Your task to perform on an android device: open app "Reddit" Image 0: 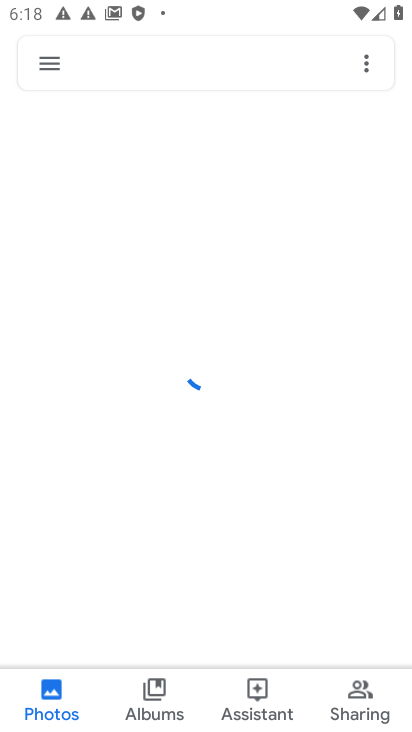
Step 0: press home button
Your task to perform on an android device: open app "Reddit" Image 1: 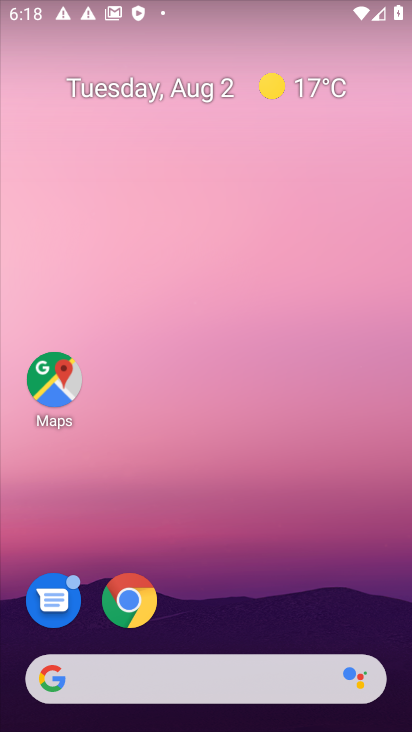
Step 1: press home button
Your task to perform on an android device: open app "Reddit" Image 2: 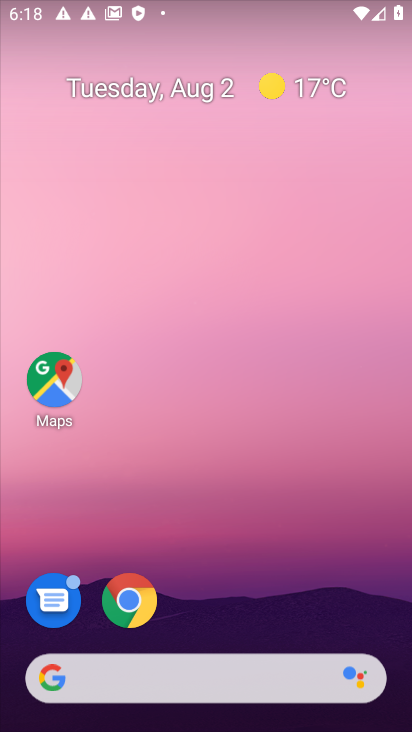
Step 2: drag from (141, 597) to (207, 40)
Your task to perform on an android device: open app "Reddit" Image 3: 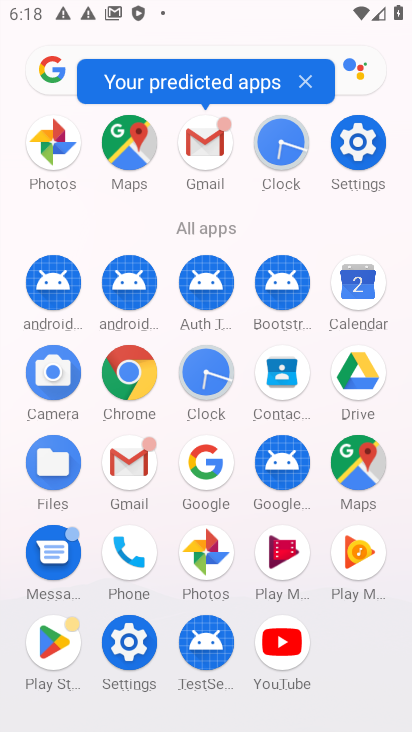
Step 3: click (19, 653)
Your task to perform on an android device: open app "Reddit" Image 4: 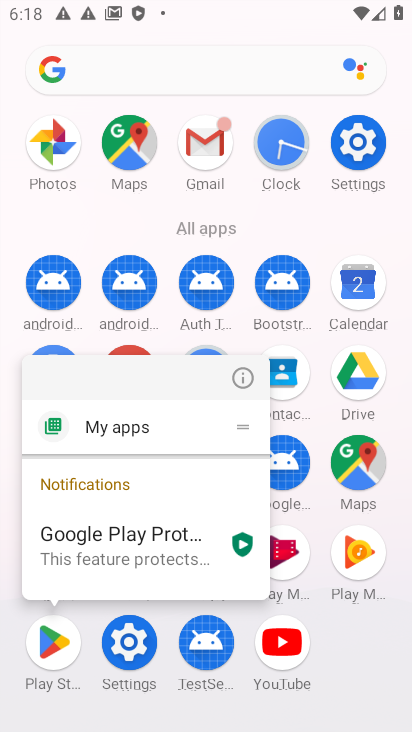
Step 4: click (59, 647)
Your task to perform on an android device: open app "Reddit" Image 5: 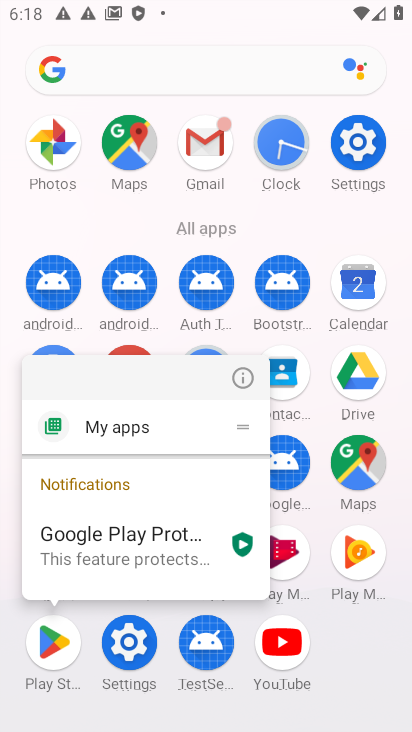
Step 5: click (57, 655)
Your task to perform on an android device: open app "Reddit" Image 6: 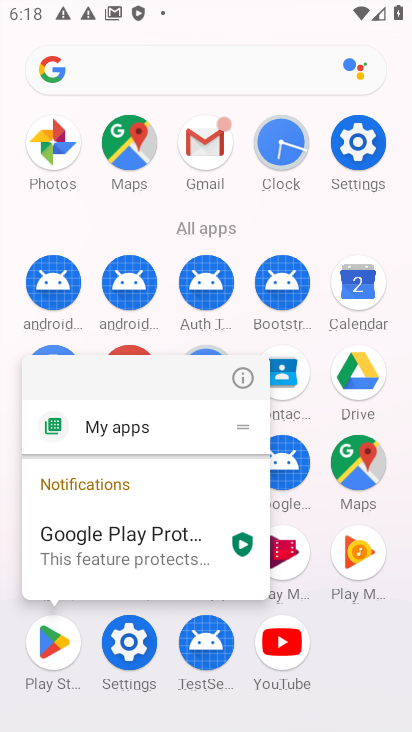
Step 6: click (32, 671)
Your task to perform on an android device: open app "Reddit" Image 7: 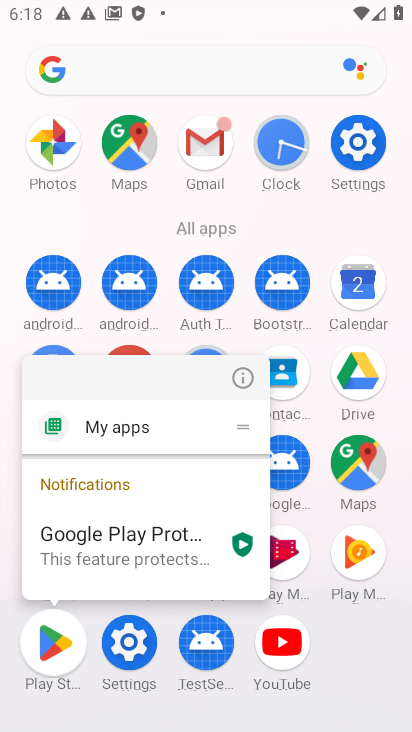
Step 7: click (73, 655)
Your task to perform on an android device: open app "Reddit" Image 8: 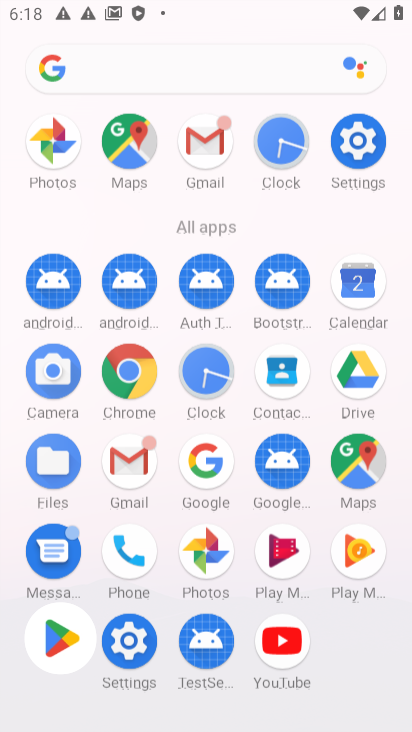
Step 8: click (51, 627)
Your task to perform on an android device: open app "Reddit" Image 9: 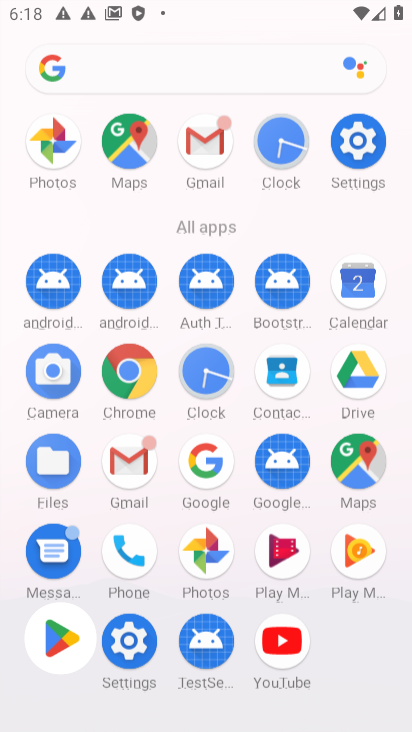
Step 9: click (40, 654)
Your task to perform on an android device: open app "Reddit" Image 10: 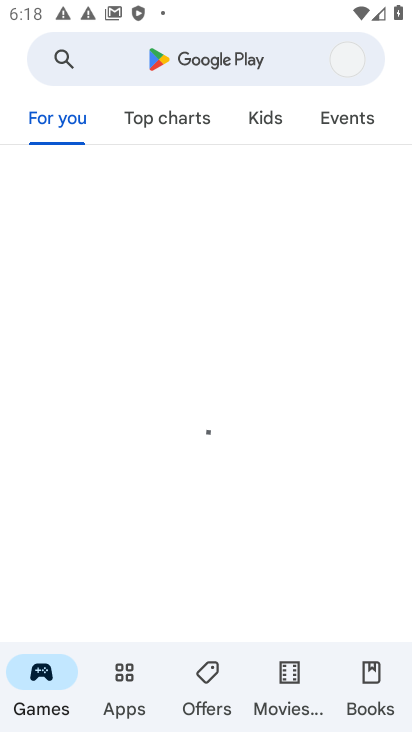
Step 10: click (237, 49)
Your task to perform on an android device: open app "Reddit" Image 11: 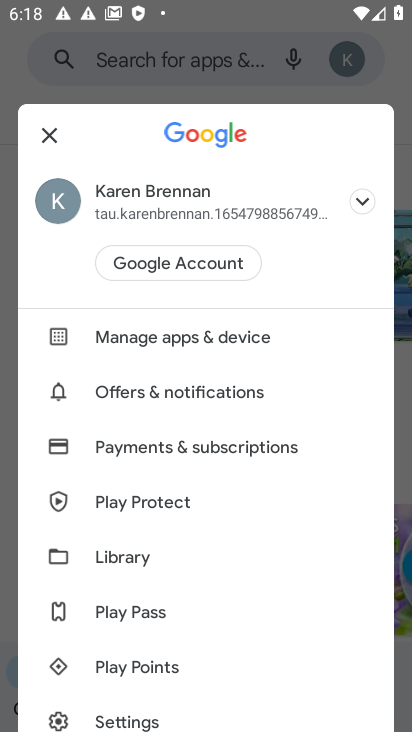
Step 11: type "reddit"
Your task to perform on an android device: open app "Reddit" Image 12: 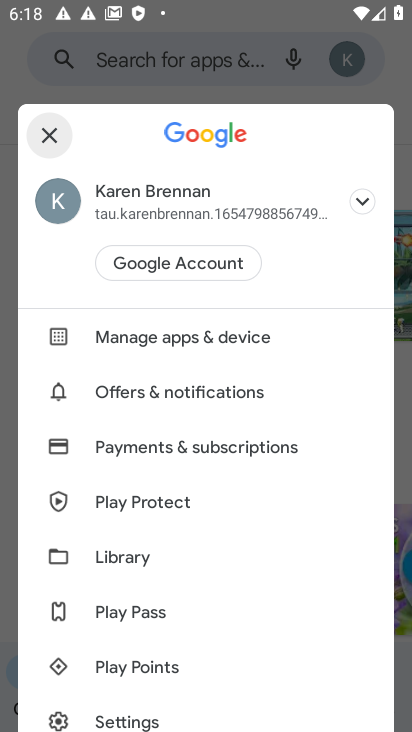
Step 12: click (52, 141)
Your task to perform on an android device: open app "Reddit" Image 13: 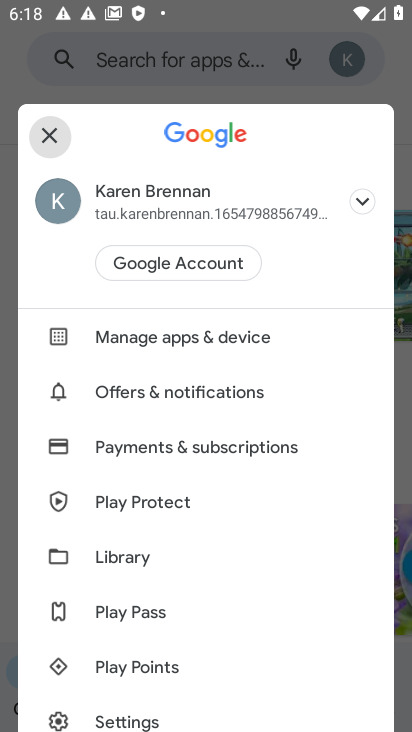
Step 13: click (213, 47)
Your task to perform on an android device: open app "Reddit" Image 14: 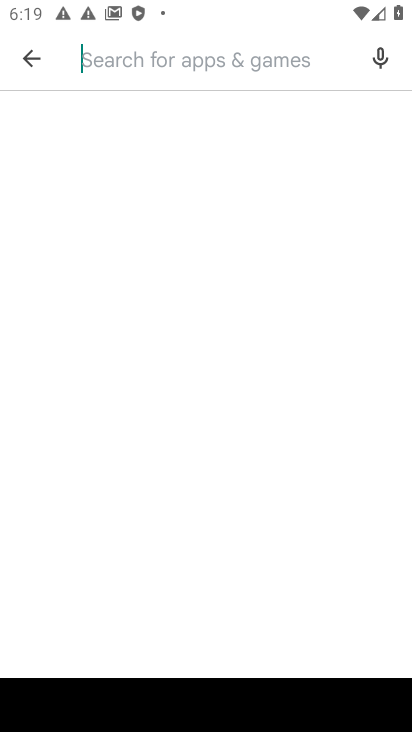
Step 14: type "reddit"
Your task to perform on an android device: open app "Reddit" Image 15: 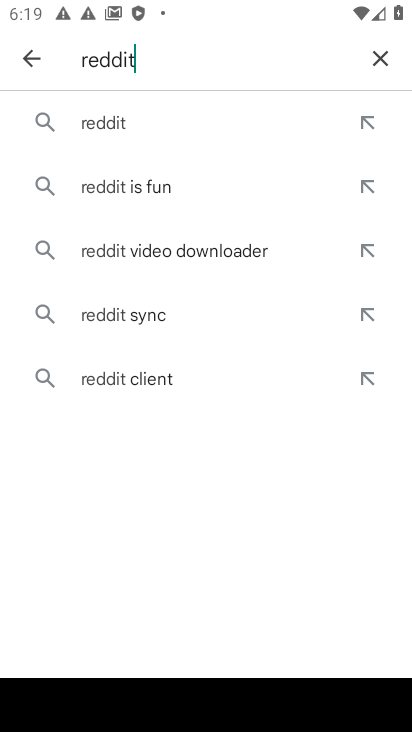
Step 15: click (238, 127)
Your task to perform on an android device: open app "Reddit" Image 16: 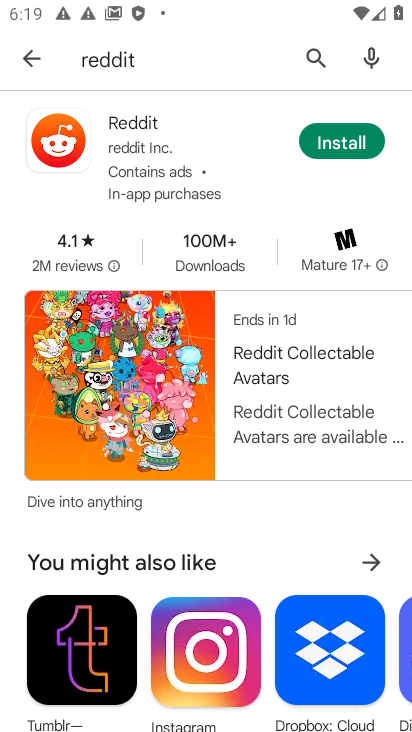
Step 16: task complete